Your task to perform on an android device: Open Google Chrome and click the shortcut for Amazon.com Image 0: 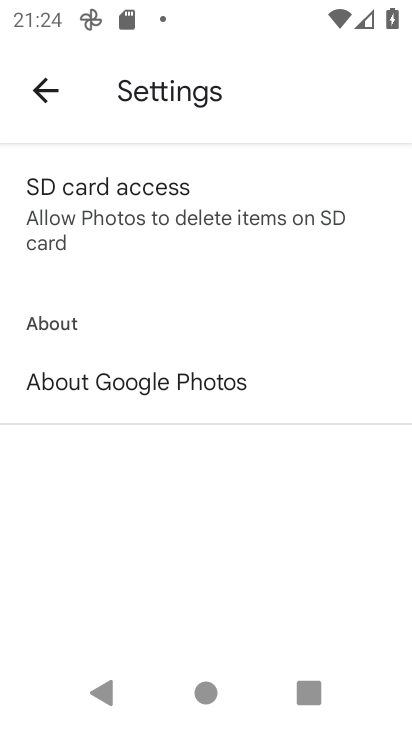
Step 0: press home button
Your task to perform on an android device: Open Google Chrome and click the shortcut for Amazon.com Image 1: 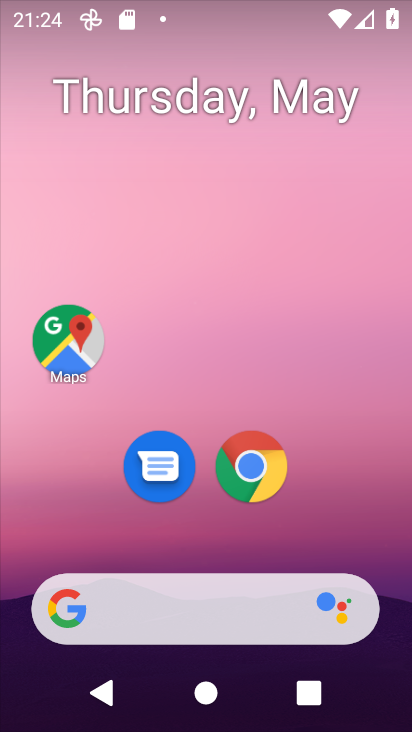
Step 1: click (263, 462)
Your task to perform on an android device: Open Google Chrome and click the shortcut for Amazon.com Image 2: 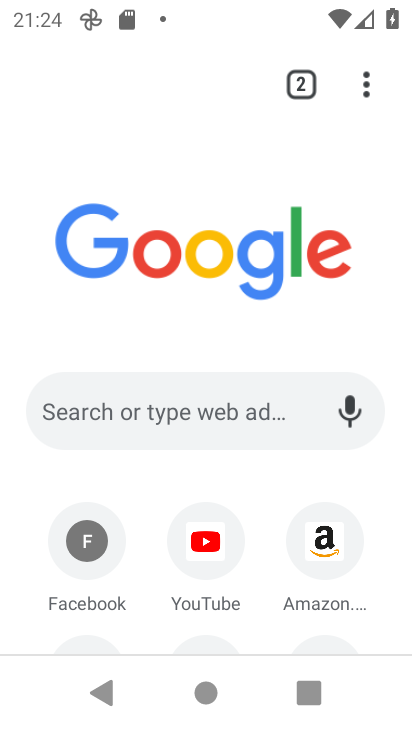
Step 2: click (336, 535)
Your task to perform on an android device: Open Google Chrome and click the shortcut for Amazon.com Image 3: 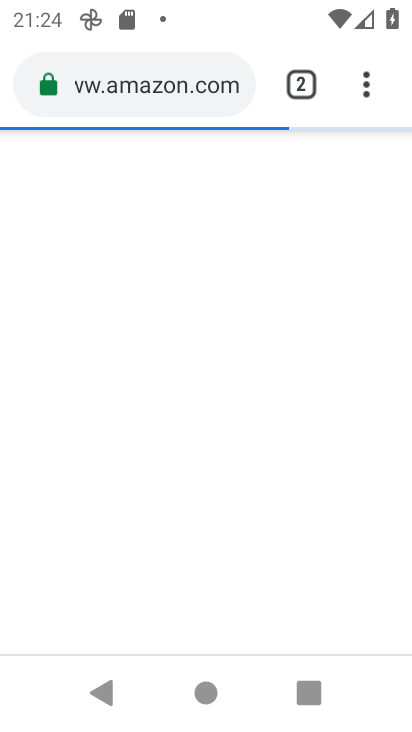
Step 3: task complete